Your task to perform on an android device: Go to network settings Image 0: 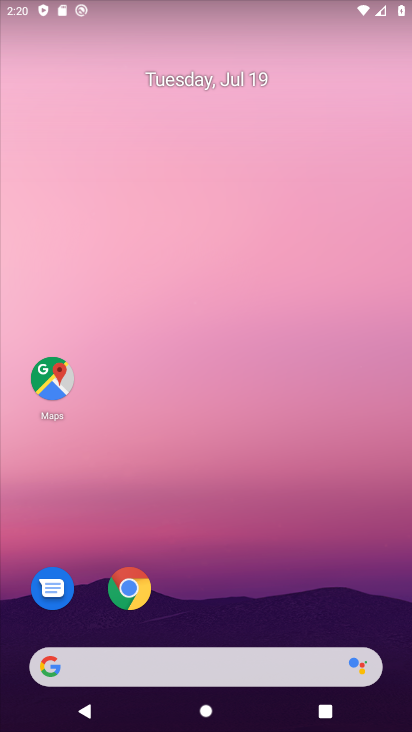
Step 0: press home button
Your task to perform on an android device: Go to network settings Image 1: 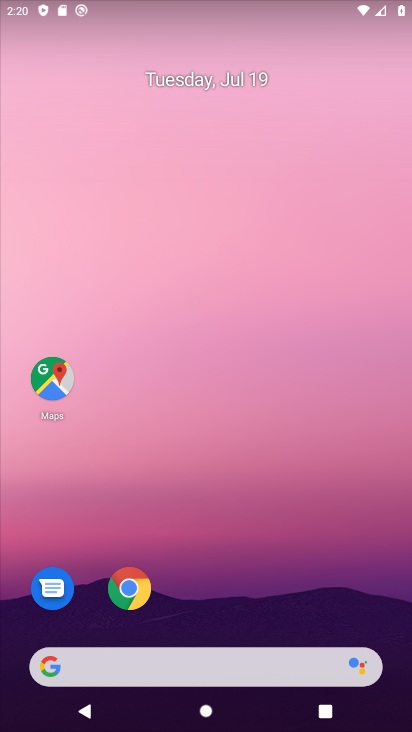
Step 1: drag from (225, 600) to (251, 174)
Your task to perform on an android device: Go to network settings Image 2: 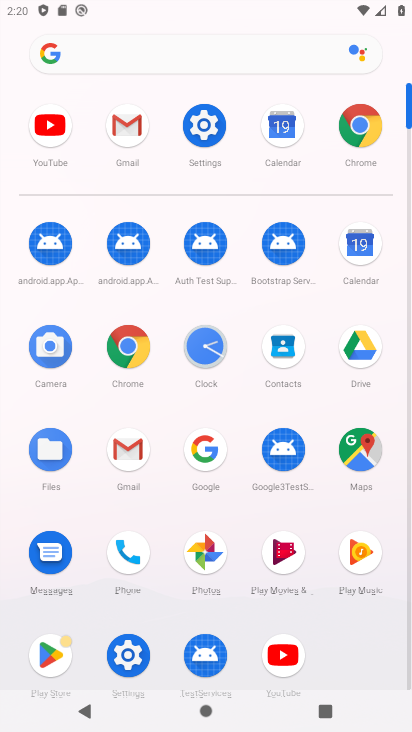
Step 2: click (201, 131)
Your task to perform on an android device: Go to network settings Image 3: 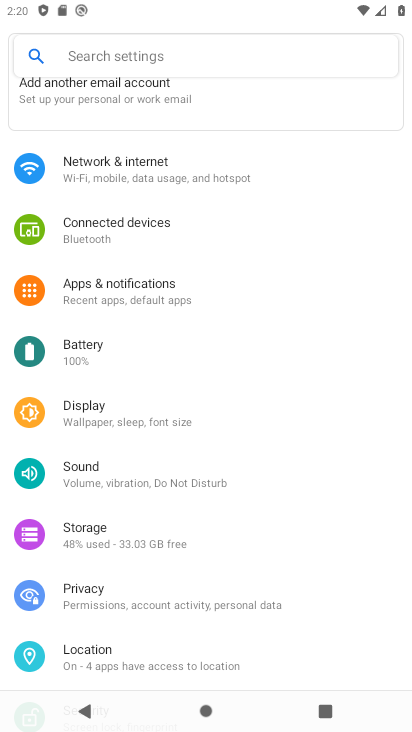
Step 3: click (101, 171)
Your task to perform on an android device: Go to network settings Image 4: 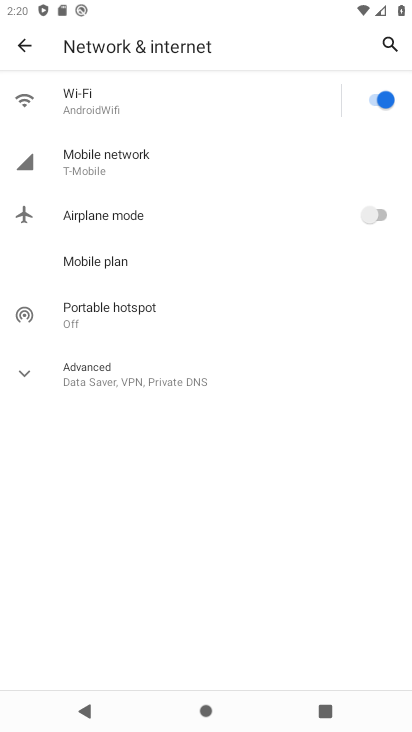
Step 4: task complete